Your task to perform on an android device: toggle sleep mode Image 0: 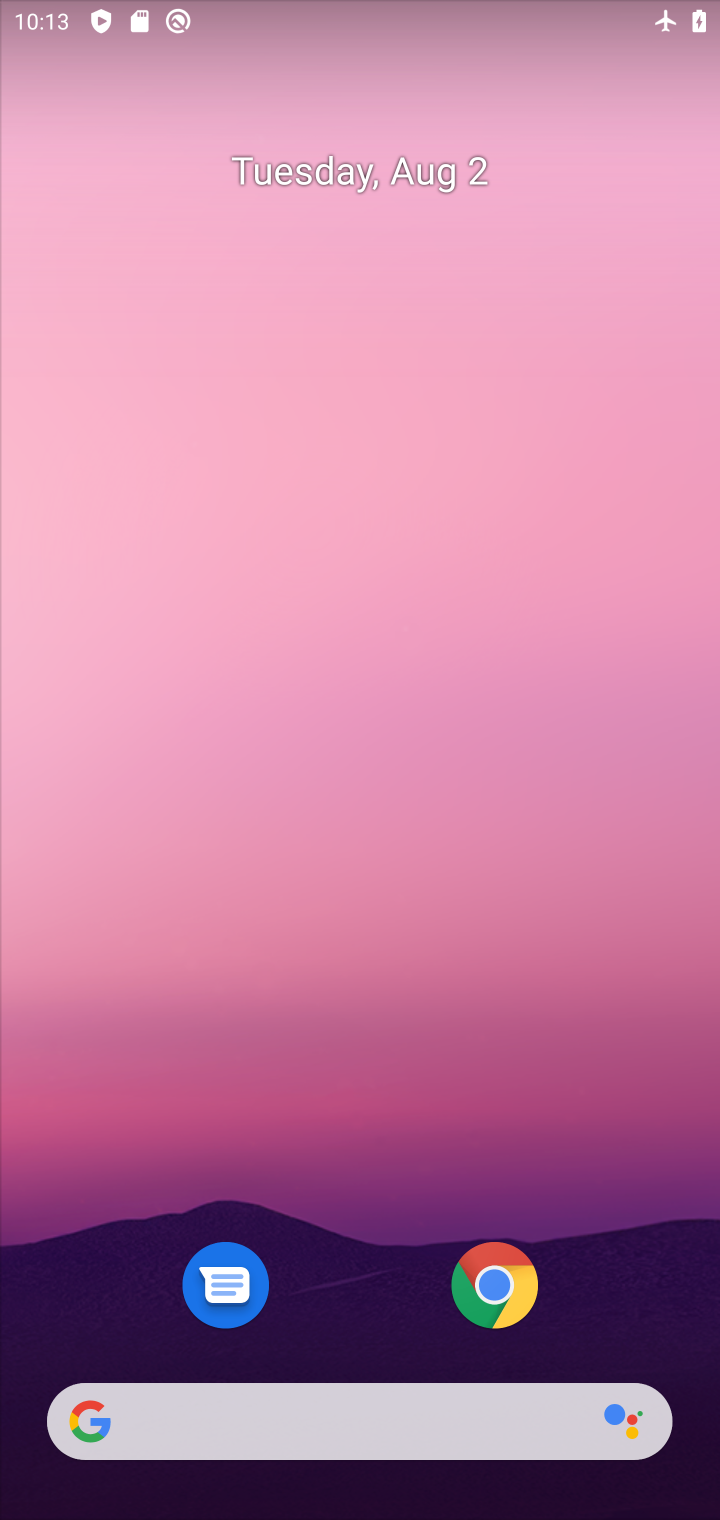
Step 0: drag from (276, 634) to (334, 109)
Your task to perform on an android device: toggle sleep mode Image 1: 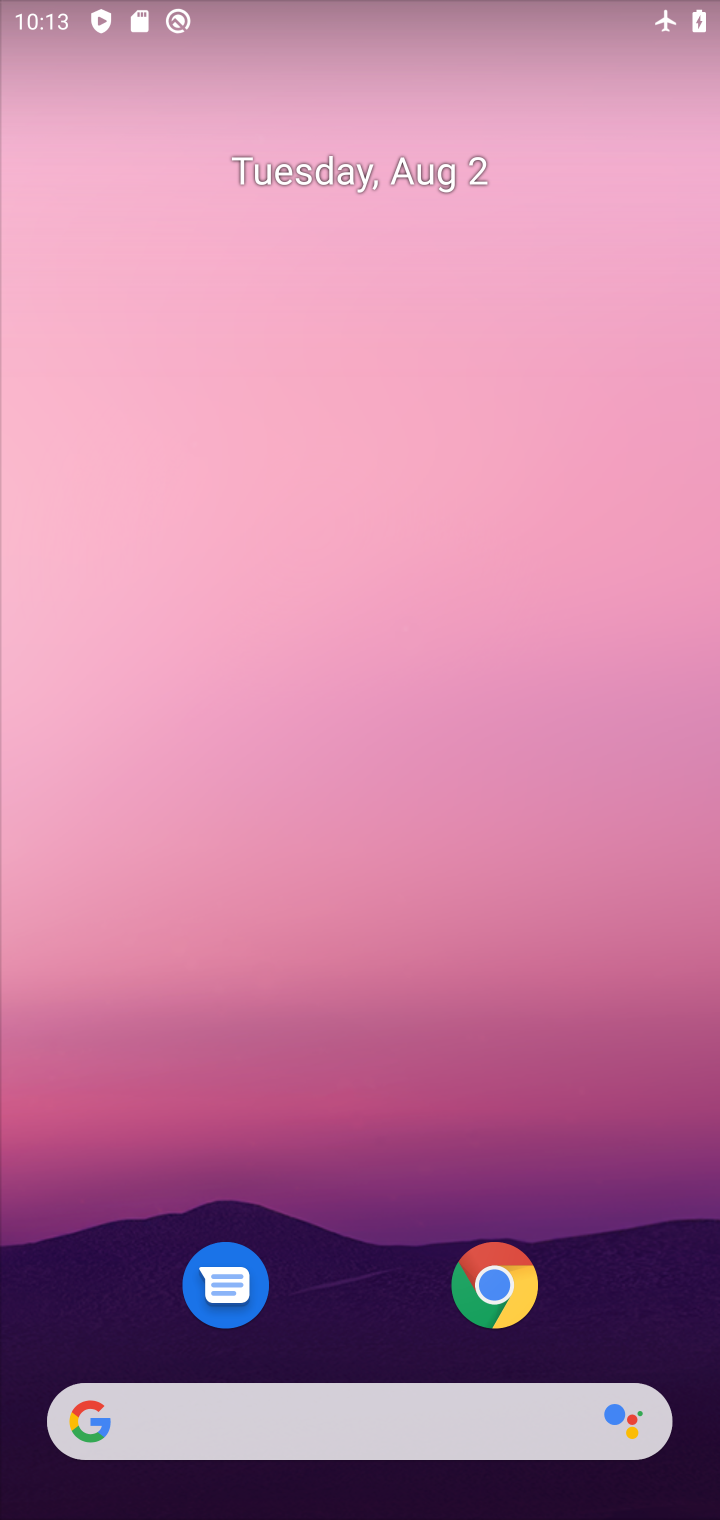
Step 1: drag from (355, 1159) to (345, 353)
Your task to perform on an android device: toggle sleep mode Image 2: 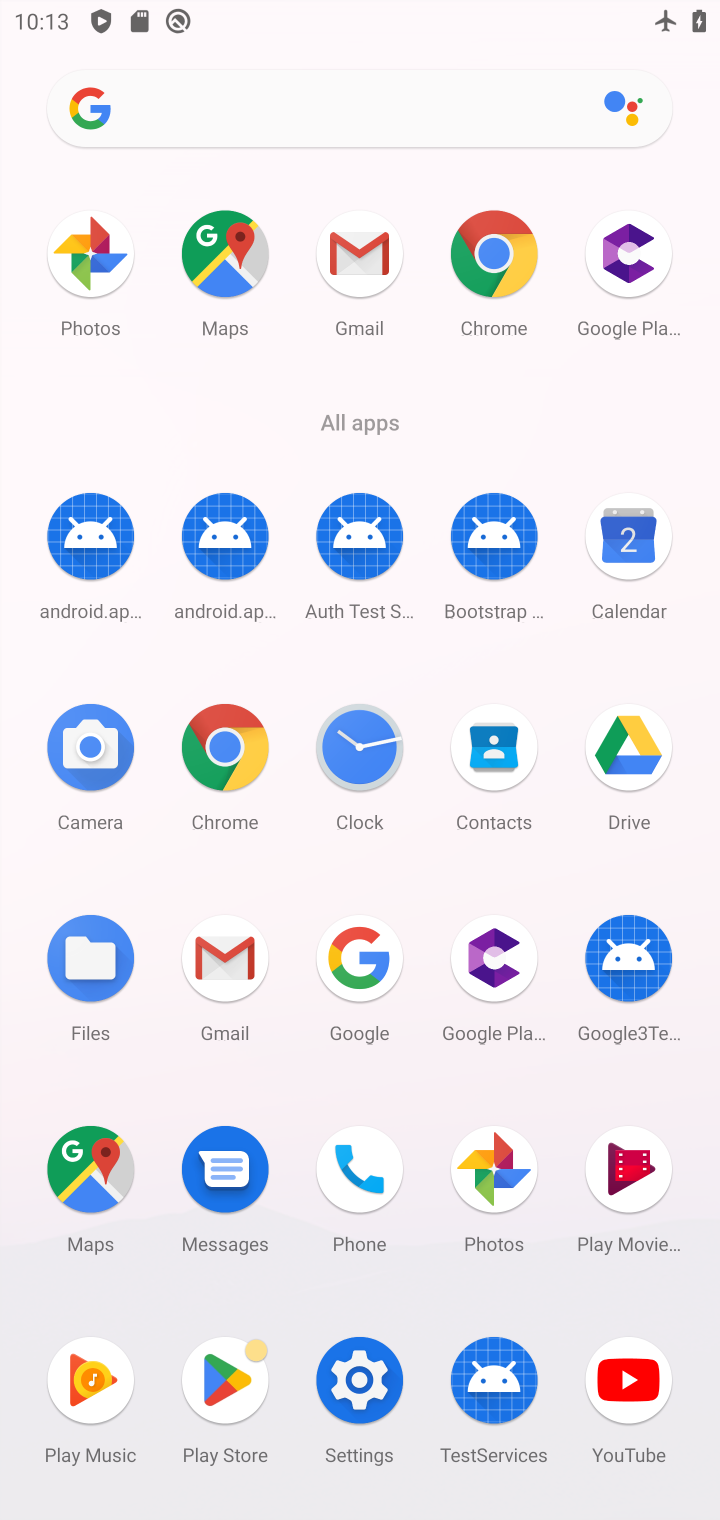
Step 2: drag from (296, 1266) to (242, 698)
Your task to perform on an android device: toggle sleep mode Image 3: 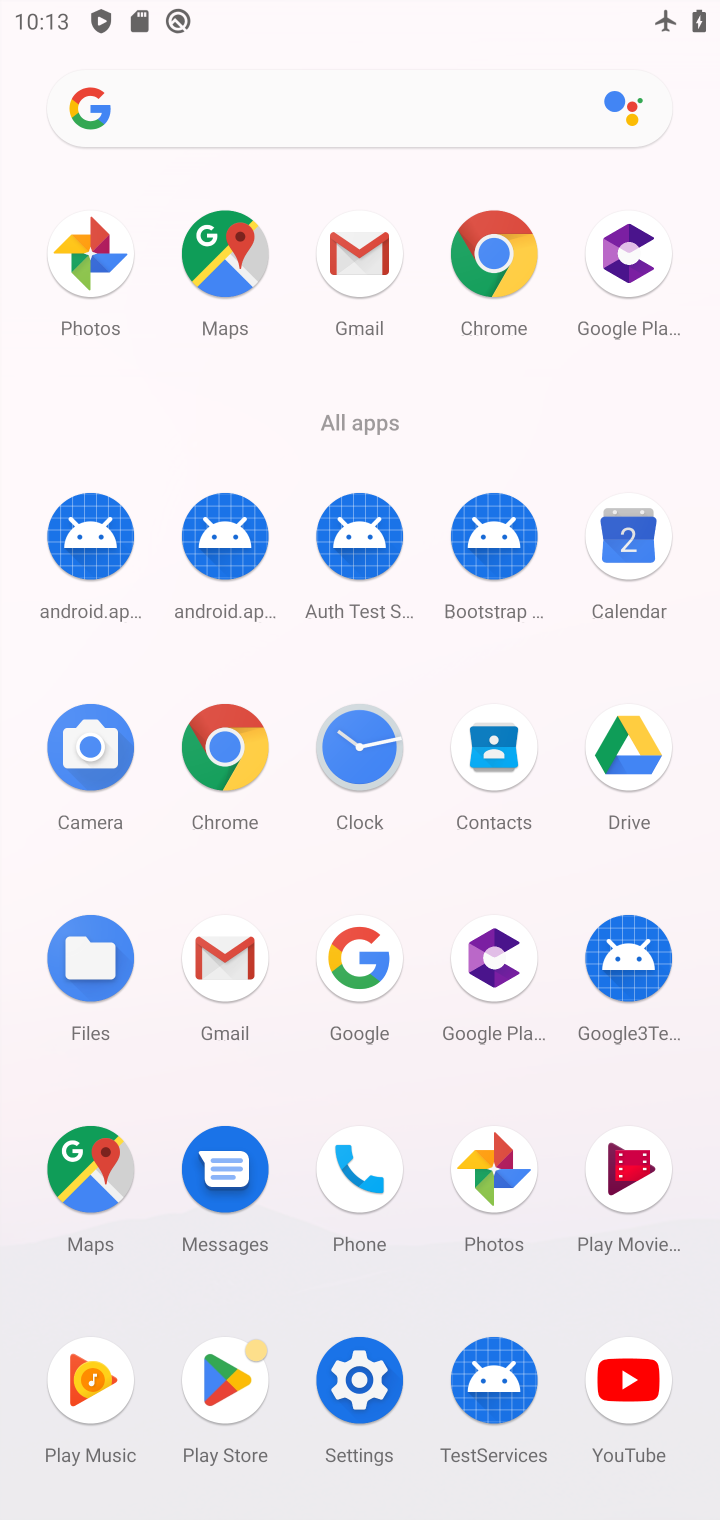
Step 3: drag from (302, 1284) to (294, 616)
Your task to perform on an android device: toggle sleep mode Image 4: 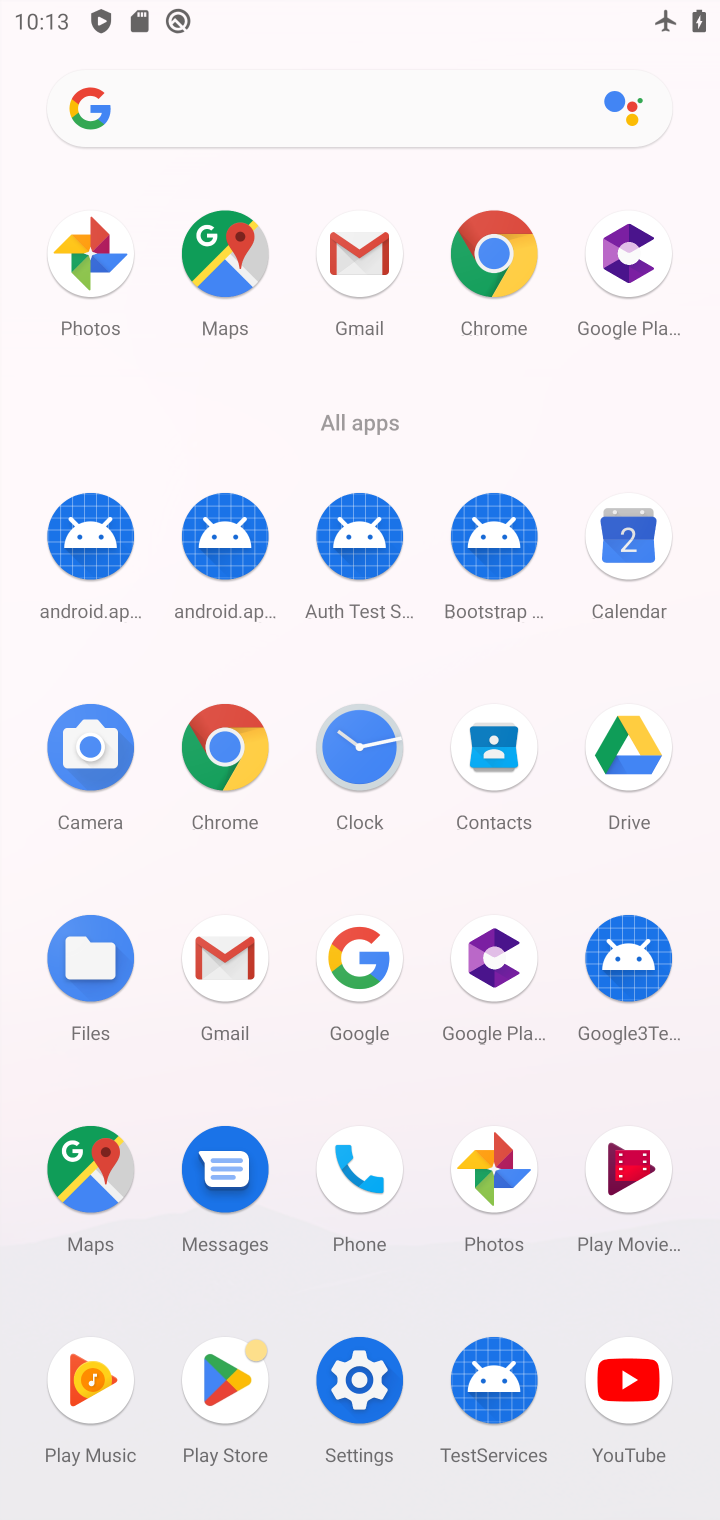
Step 4: drag from (410, 1048) to (391, 679)
Your task to perform on an android device: toggle sleep mode Image 5: 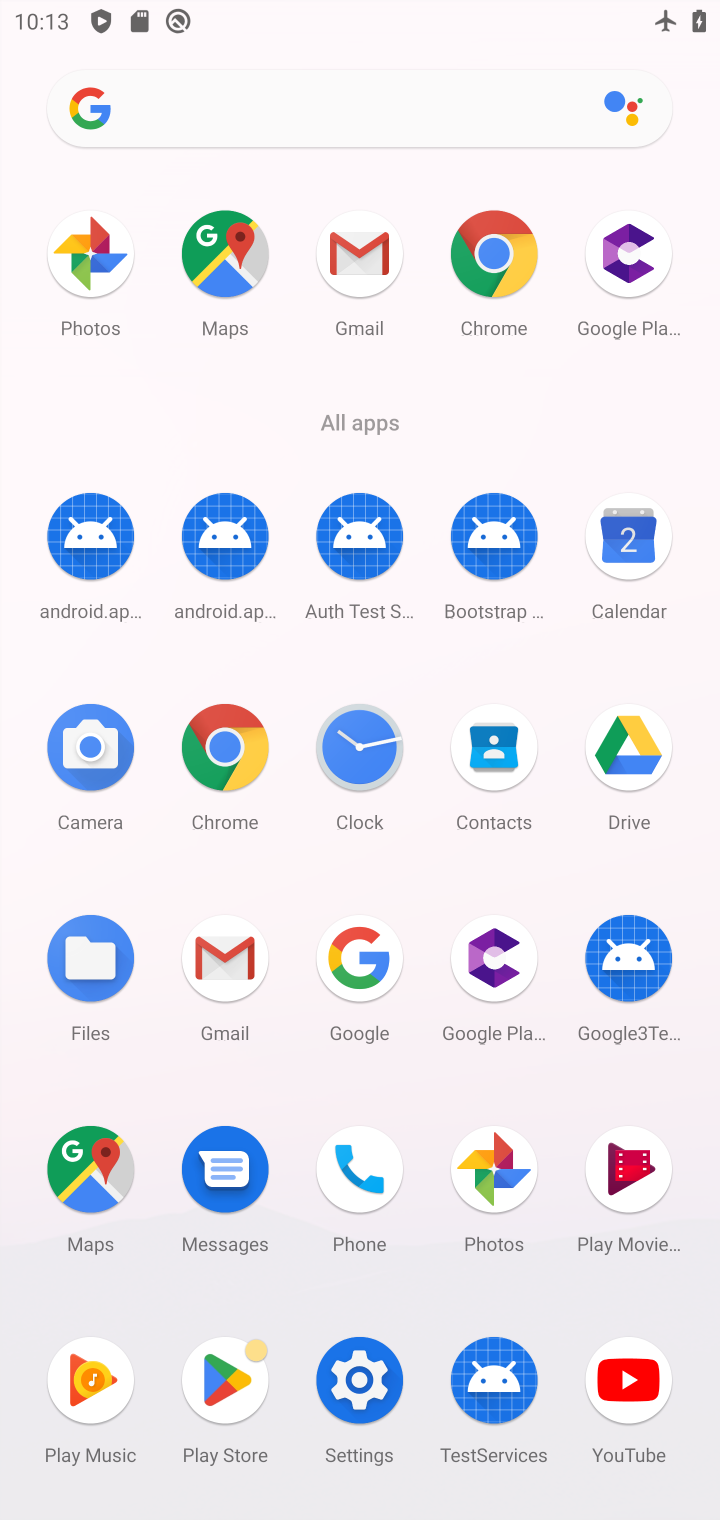
Step 5: click (367, 1366)
Your task to perform on an android device: toggle sleep mode Image 6: 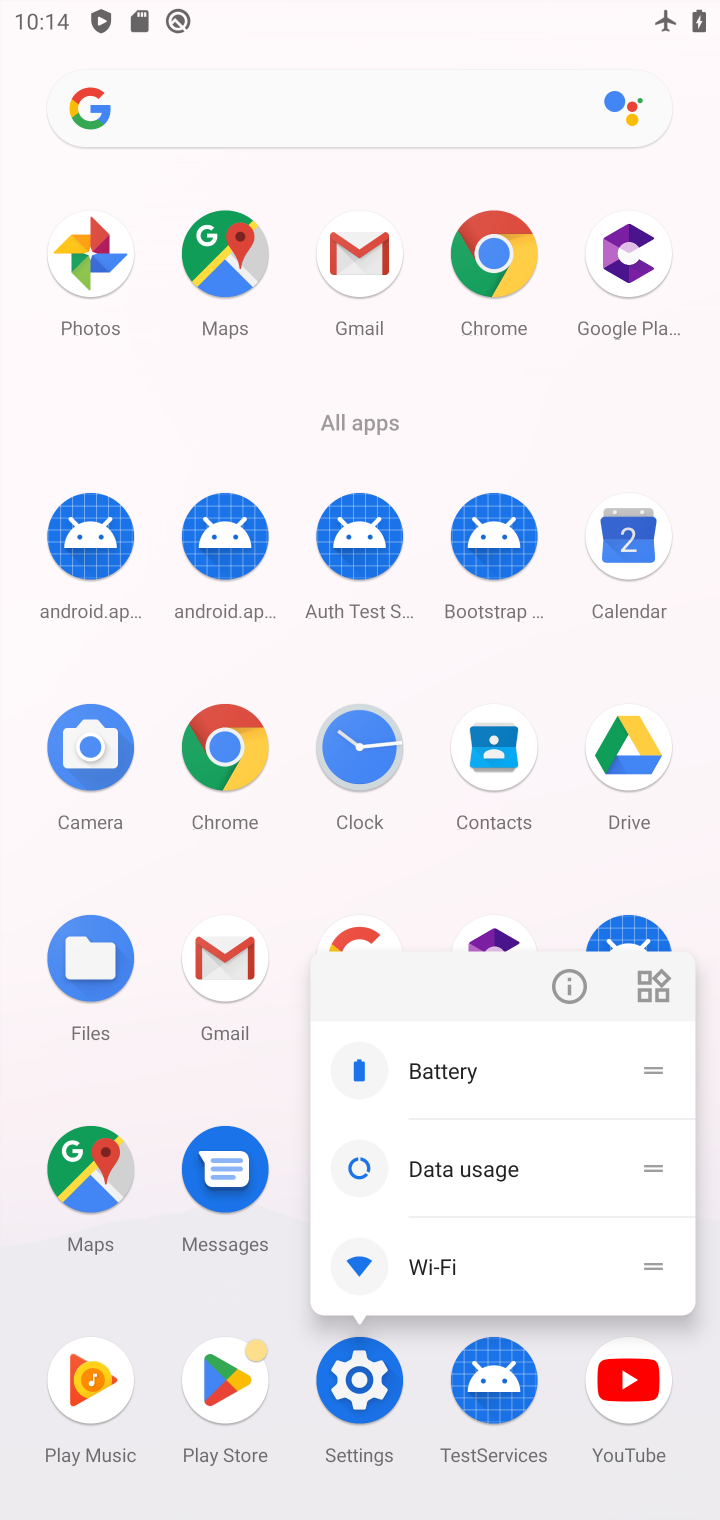
Step 6: click (576, 969)
Your task to perform on an android device: toggle sleep mode Image 7: 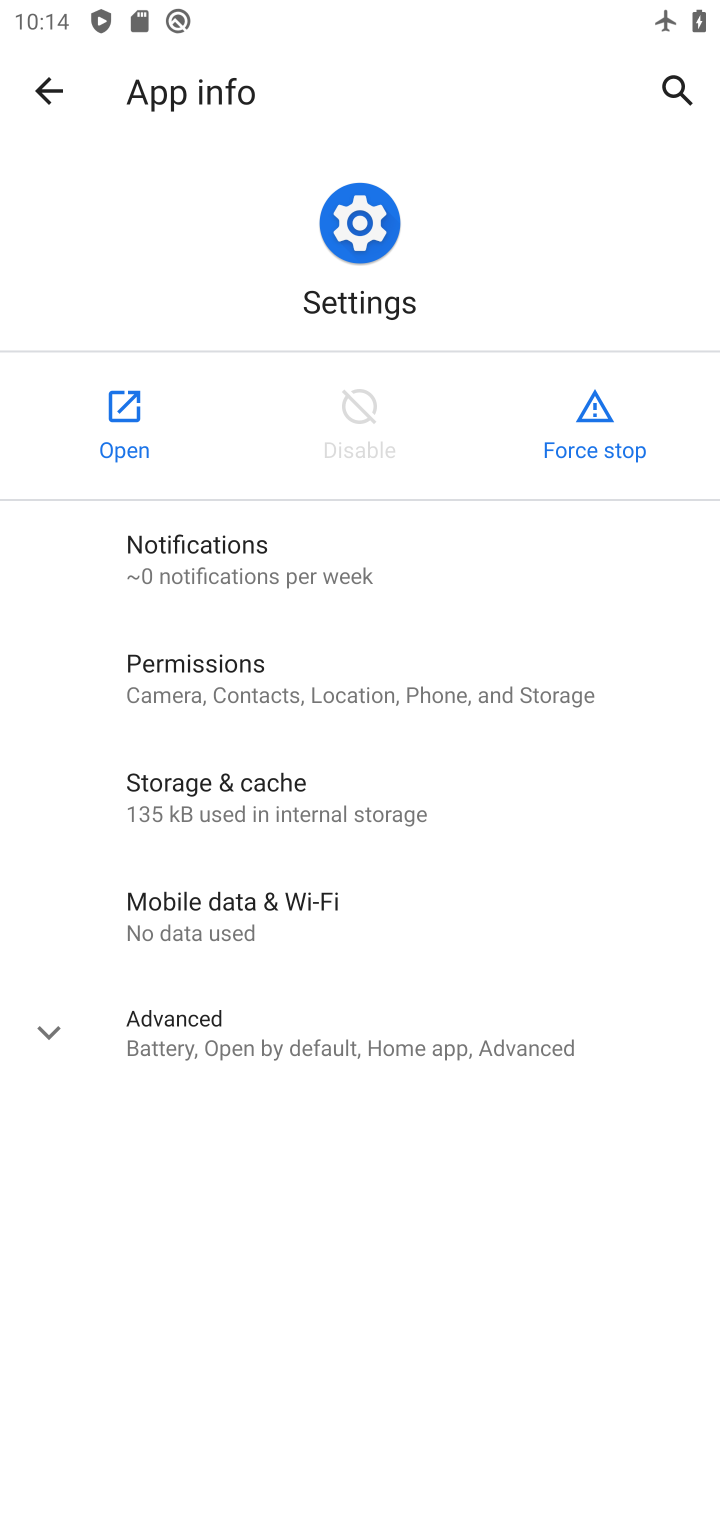
Step 7: click (129, 422)
Your task to perform on an android device: toggle sleep mode Image 8: 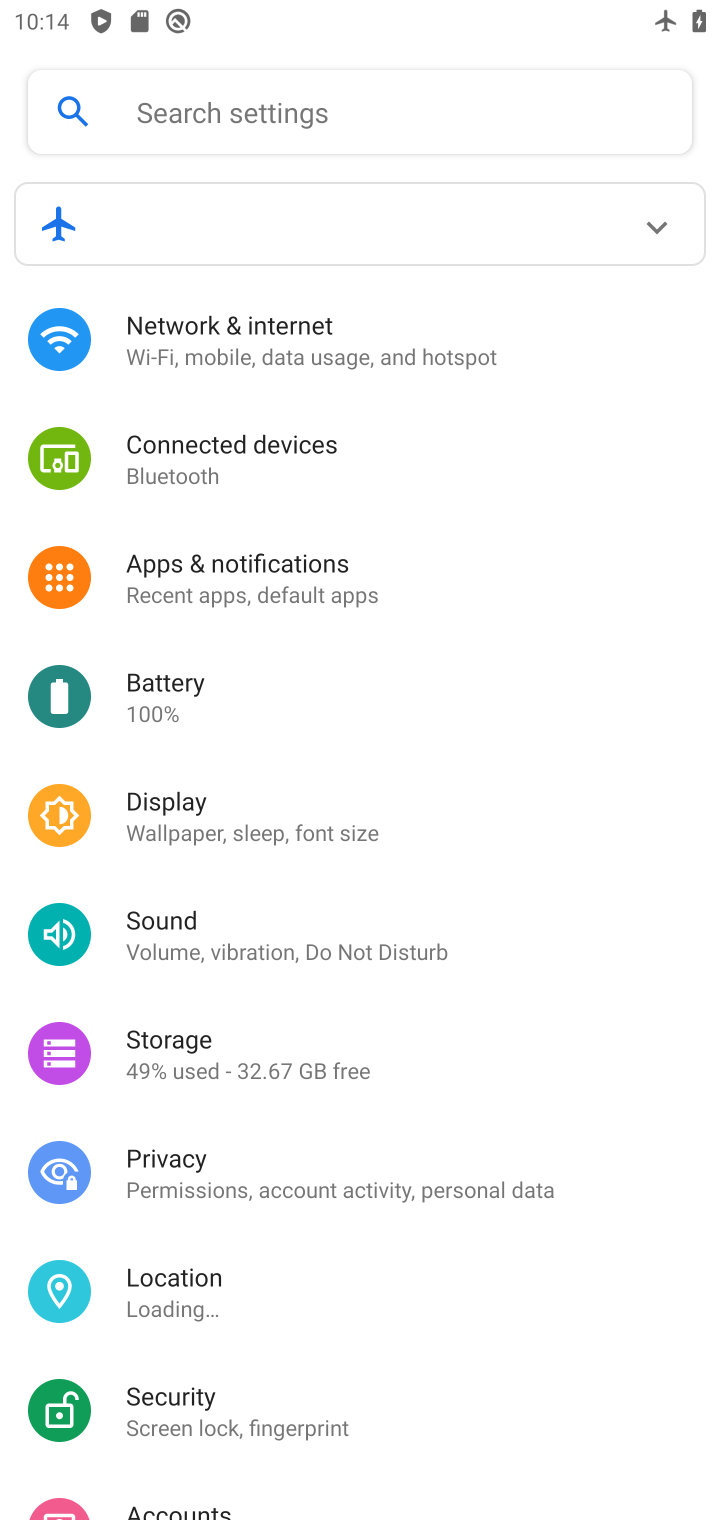
Step 8: click (290, 813)
Your task to perform on an android device: toggle sleep mode Image 9: 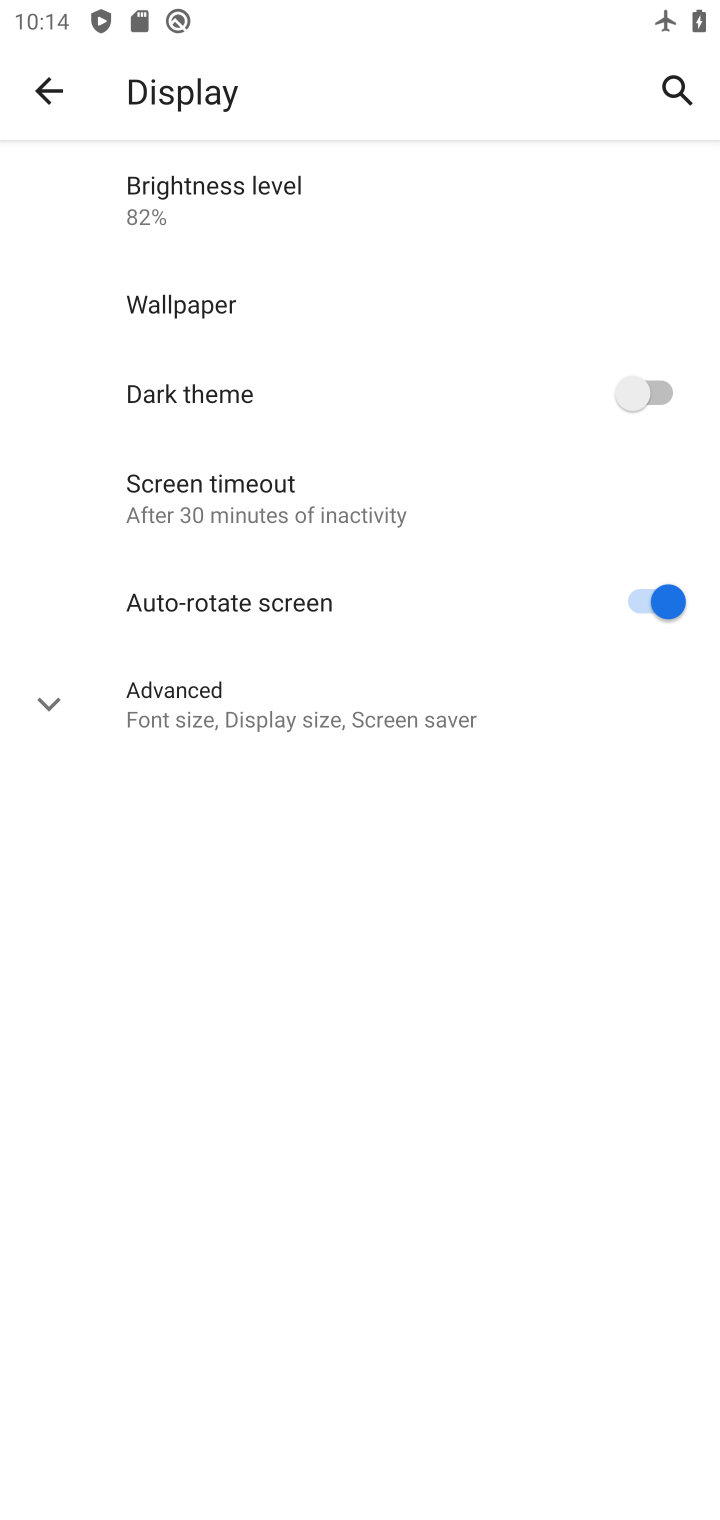
Step 9: click (241, 486)
Your task to perform on an android device: toggle sleep mode Image 10: 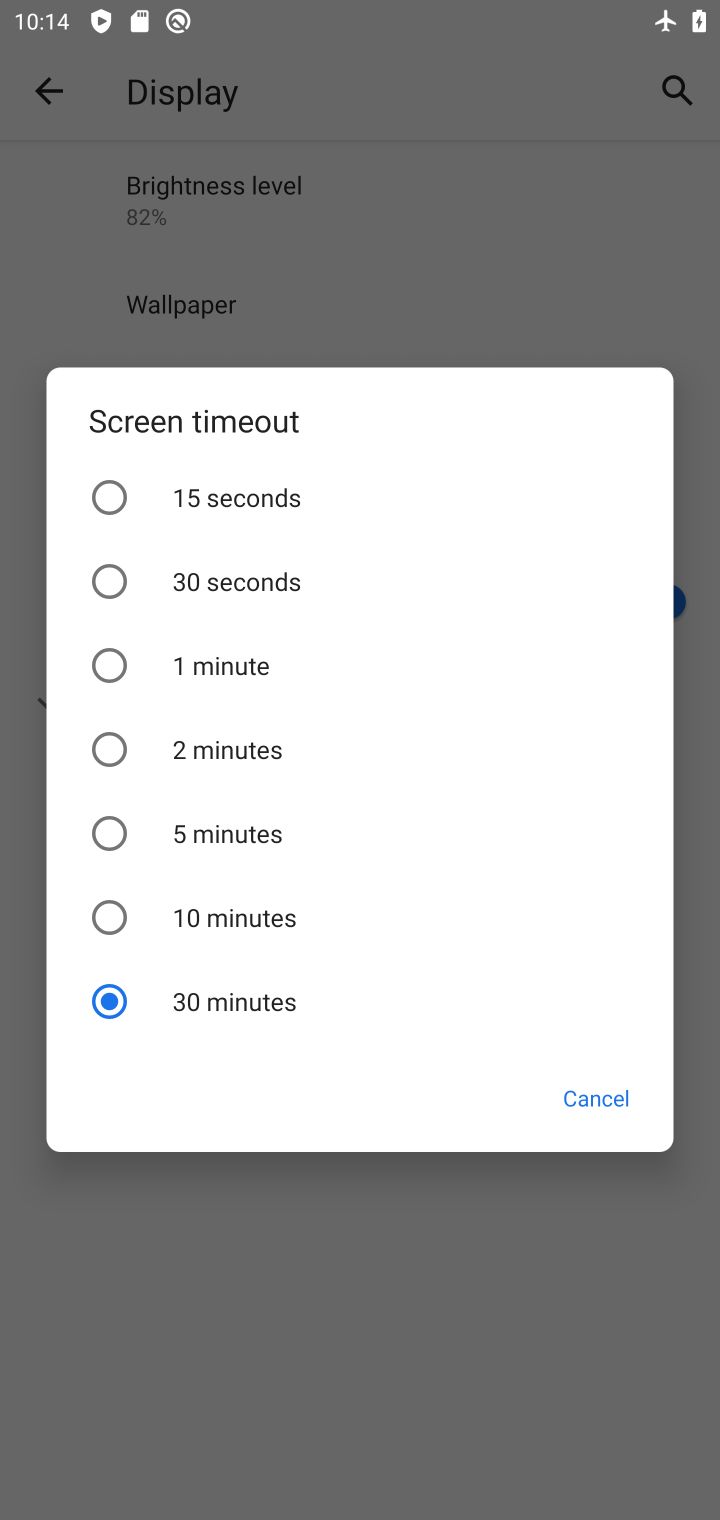
Step 10: task complete